Your task to perform on an android device: Go to calendar. Show me events next week Image 0: 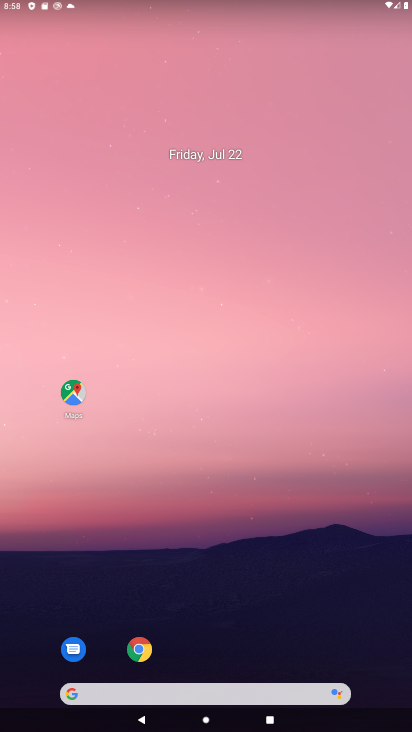
Step 0: drag from (259, 496) to (323, 150)
Your task to perform on an android device: Go to calendar. Show me events next week Image 1: 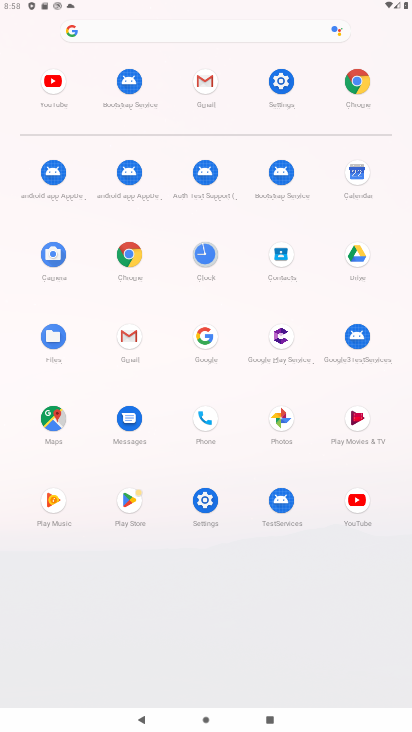
Step 1: click (361, 170)
Your task to perform on an android device: Go to calendar. Show me events next week Image 2: 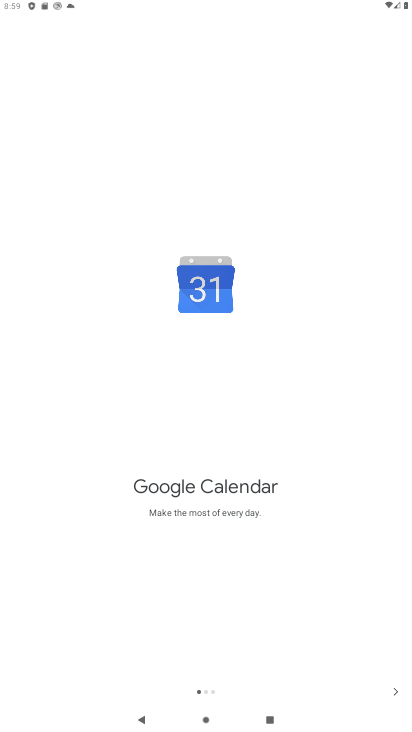
Step 2: click (395, 697)
Your task to perform on an android device: Go to calendar. Show me events next week Image 3: 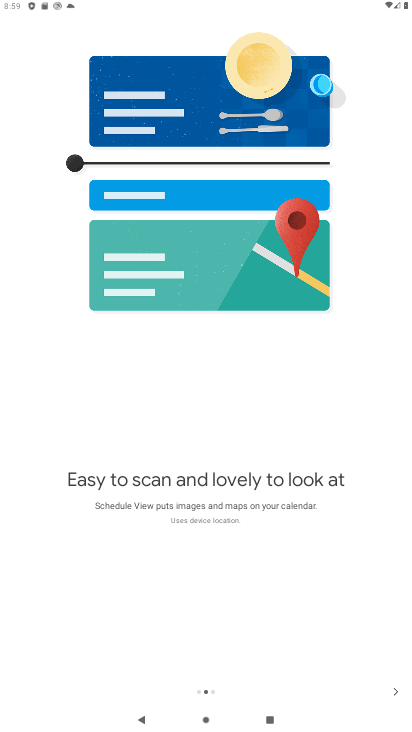
Step 3: click (395, 697)
Your task to perform on an android device: Go to calendar. Show me events next week Image 4: 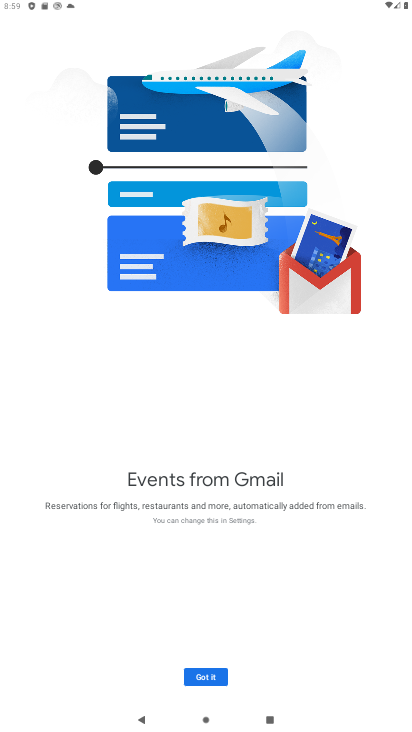
Step 4: click (395, 693)
Your task to perform on an android device: Go to calendar. Show me events next week Image 5: 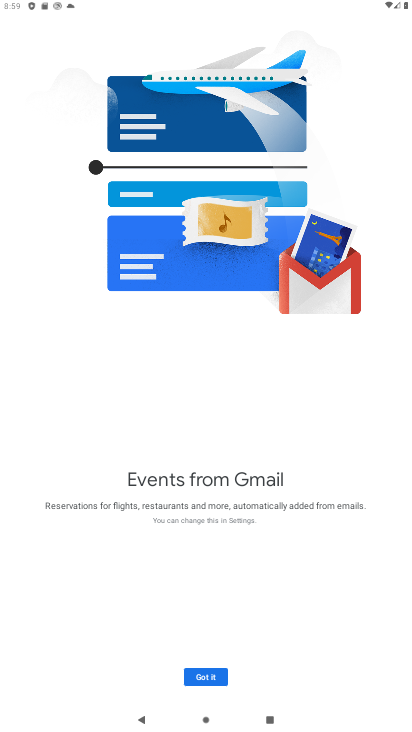
Step 5: click (215, 686)
Your task to perform on an android device: Go to calendar. Show me events next week Image 6: 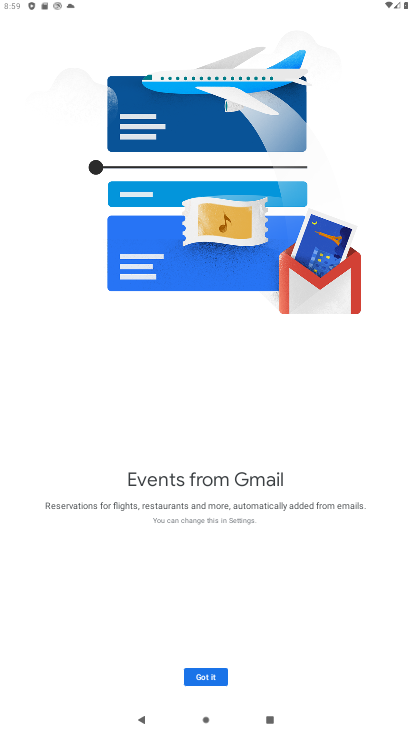
Step 6: click (215, 679)
Your task to perform on an android device: Go to calendar. Show me events next week Image 7: 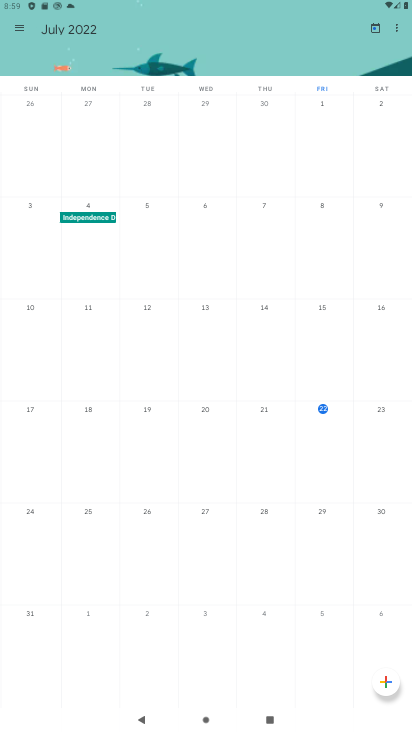
Step 7: task complete